Your task to perform on an android device: Set the phone to "Do not disturb". Image 0: 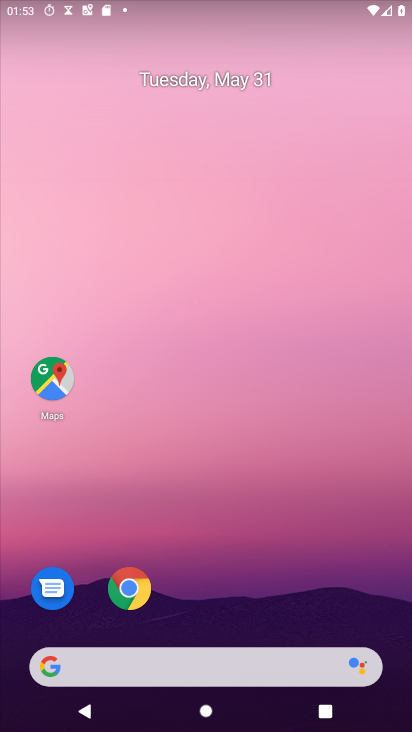
Step 0: drag from (326, 643) to (335, 0)
Your task to perform on an android device: Set the phone to "Do not disturb". Image 1: 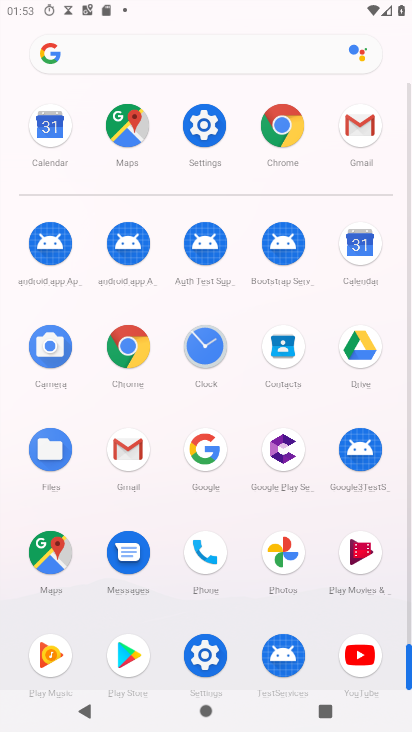
Step 1: click (220, 130)
Your task to perform on an android device: Set the phone to "Do not disturb". Image 2: 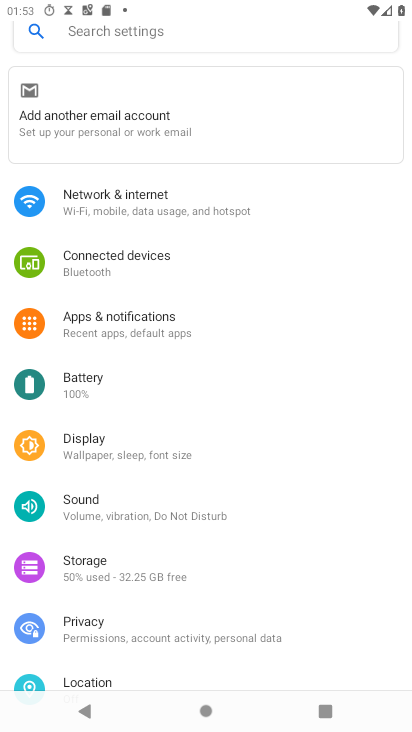
Step 2: click (110, 515)
Your task to perform on an android device: Set the phone to "Do not disturb". Image 3: 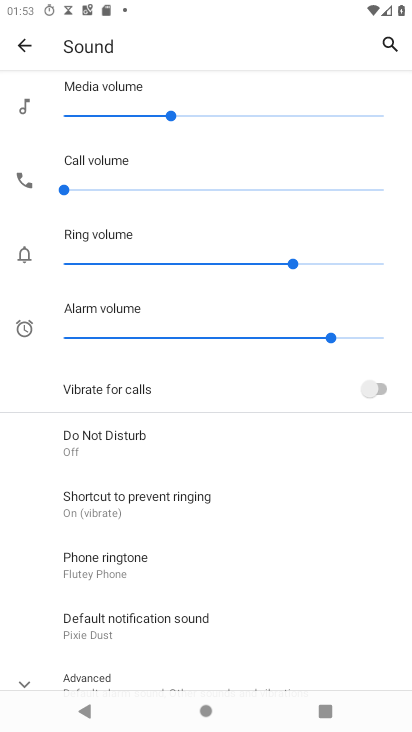
Step 3: click (153, 452)
Your task to perform on an android device: Set the phone to "Do not disturb". Image 4: 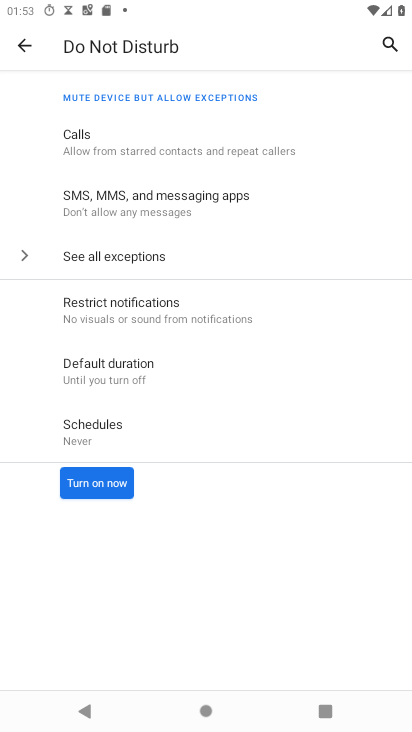
Step 4: click (110, 488)
Your task to perform on an android device: Set the phone to "Do not disturb". Image 5: 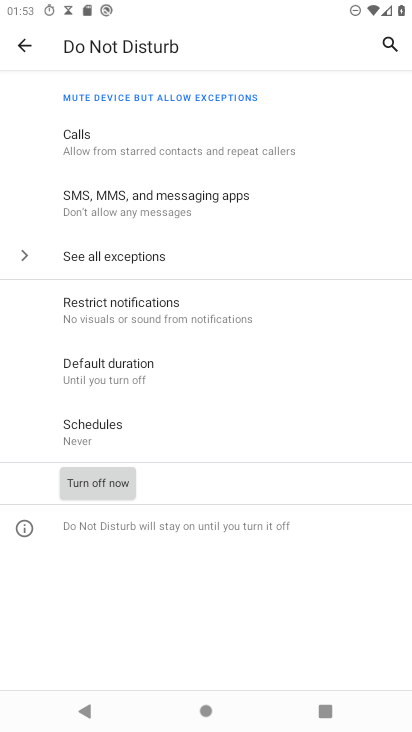
Step 5: task complete